Your task to perform on an android device: turn pop-ups off in chrome Image 0: 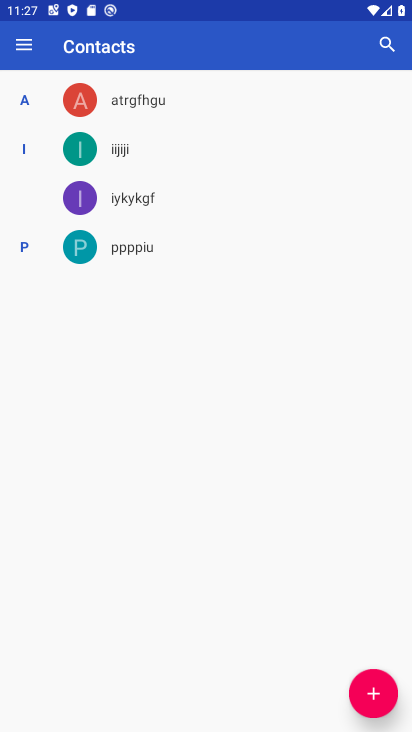
Step 0: press home button
Your task to perform on an android device: turn pop-ups off in chrome Image 1: 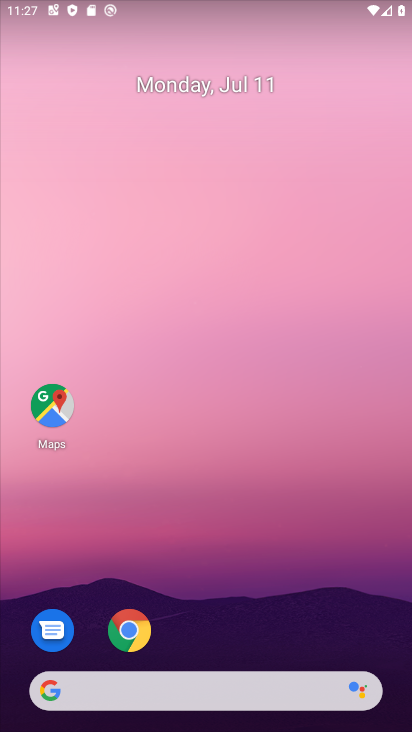
Step 1: drag from (324, 607) to (283, 134)
Your task to perform on an android device: turn pop-ups off in chrome Image 2: 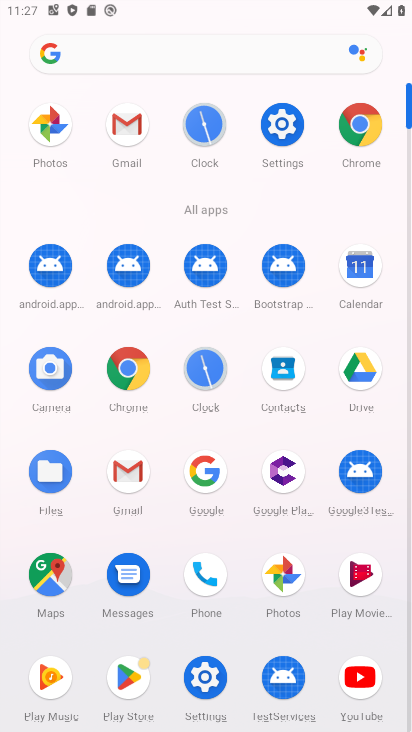
Step 2: click (147, 360)
Your task to perform on an android device: turn pop-ups off in chrome Image 3: 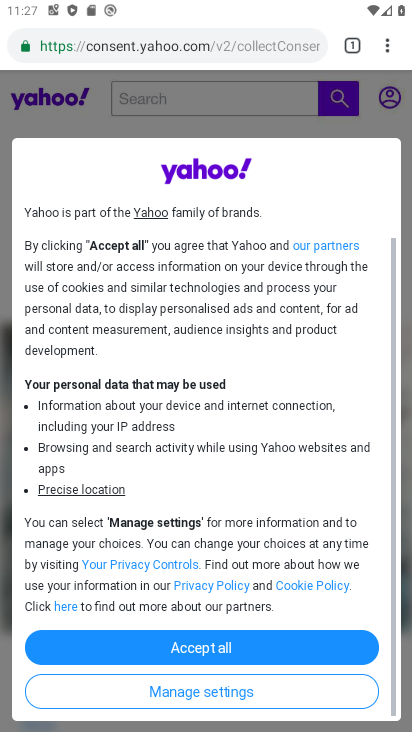
Step 3: click (233, 655)
Your task to perform on an android device: turn pop-ups off in chrome Image 4: 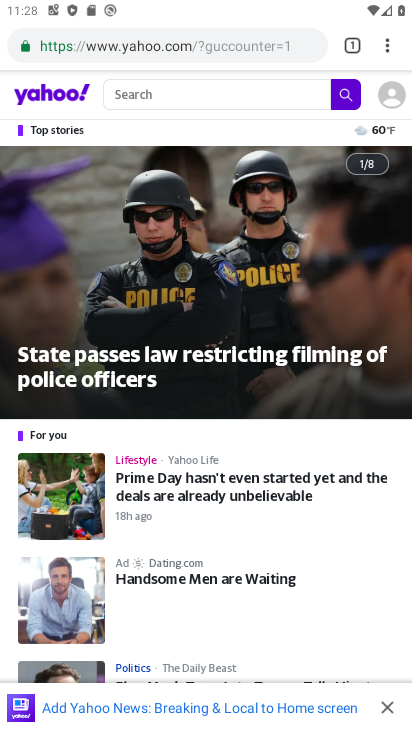
Step 4: click (392, 45)
Your task to perform on an android device: turn pop-ups off in chrome Image 5: 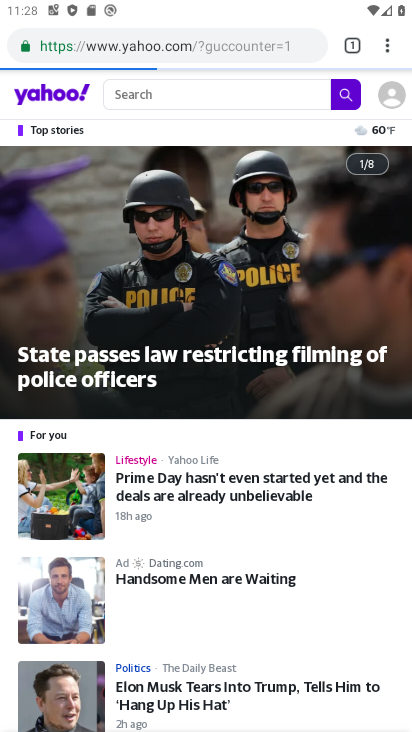
Step 5: click (392, 45)
Your task to perform on an android device: turn pop-ups off in chrome Image 6: 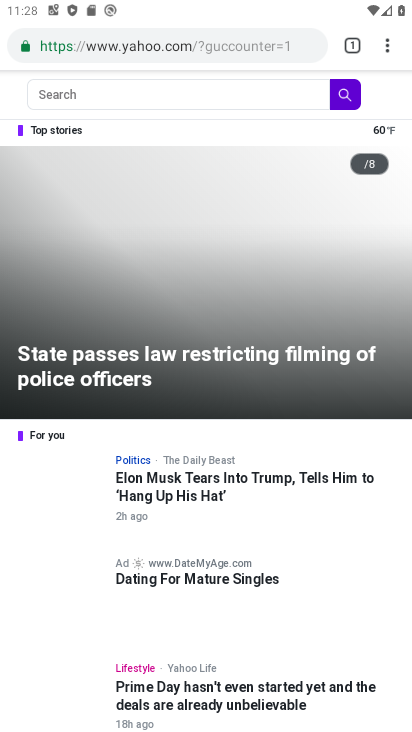
Step 6: click (392, 45)
Your task to perform on an android device: turn pop-ups off in chrome Image 7: 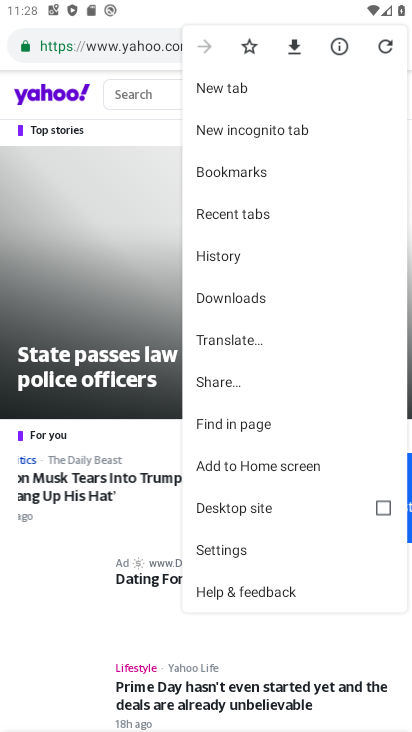
Step 7: click (216, 550)
Your task to perform on an android device: turn pop-ups off in chrome Image 8: 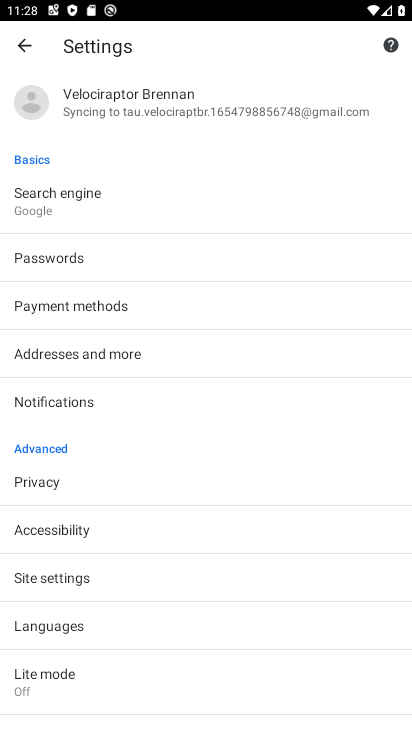
Step 8: drag from (104, 612) to (108, 392)
Your task to perform on an android device: turn pop-ups off in chrome Image 9: 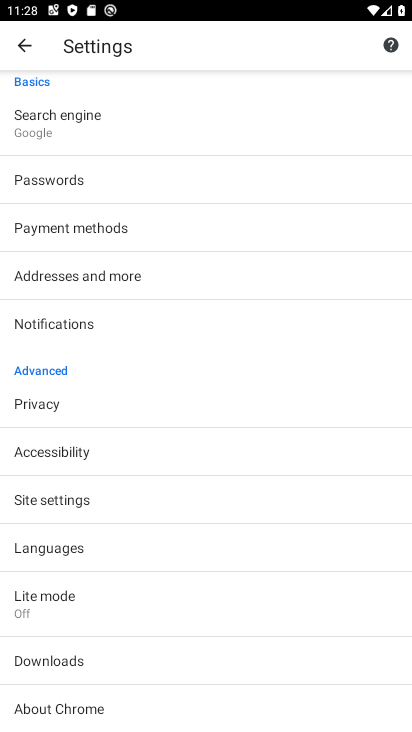
Step 9: click (97, 496)
Your task to perform on an android device: turn pop-ups off in chrome Image 10: 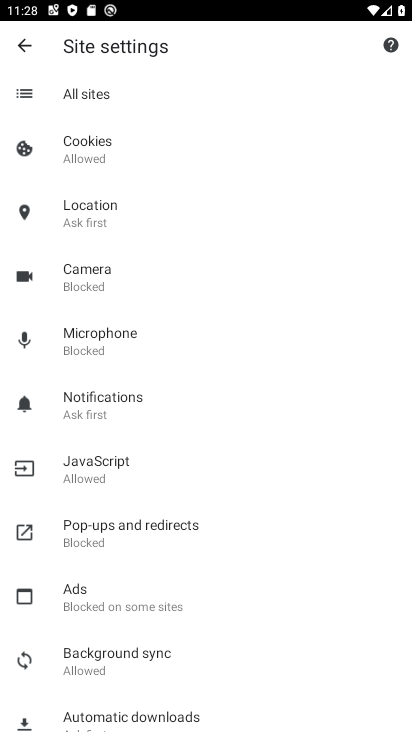
Step 10: click (112, 529)
Your task to perform on an android device: turn pop-ups off in chrome Image 11: 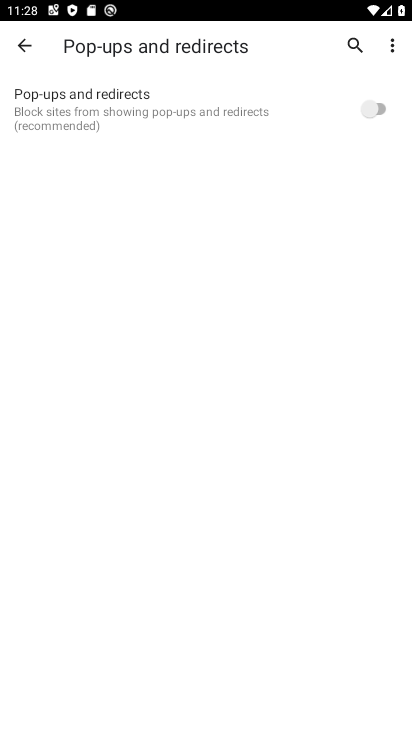
Step 11: task complete